Your task to perform on an android device: allow cookies in the chrome app Image 0: 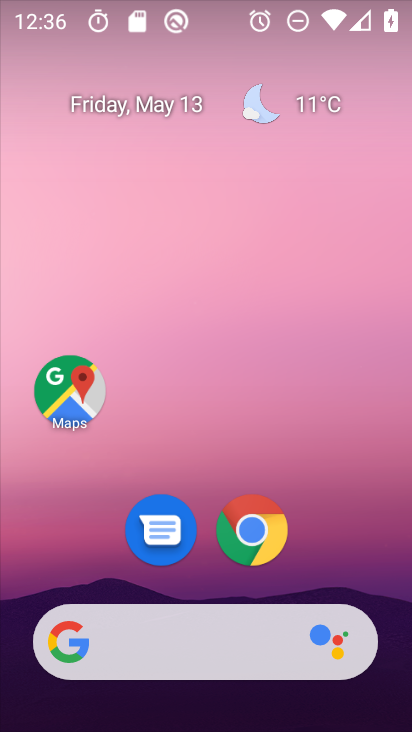
Step 0: press home button
Your task to perform on an android device: allow cookies in the chrome app Image 1: 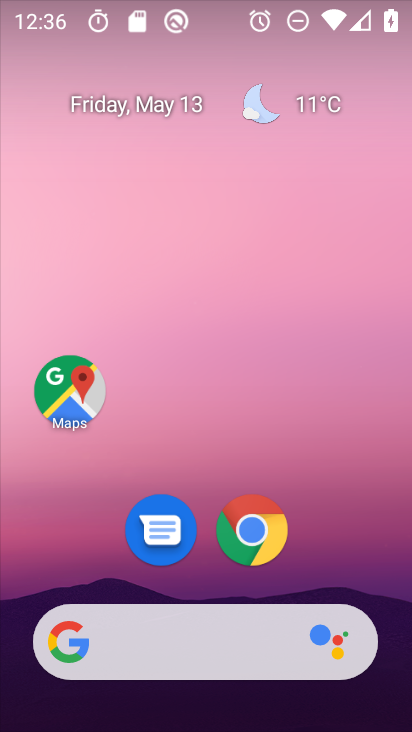
Step 1: click (250, 547)
Your task to perform on an android device: allow cookies in the chrome app Image 2: 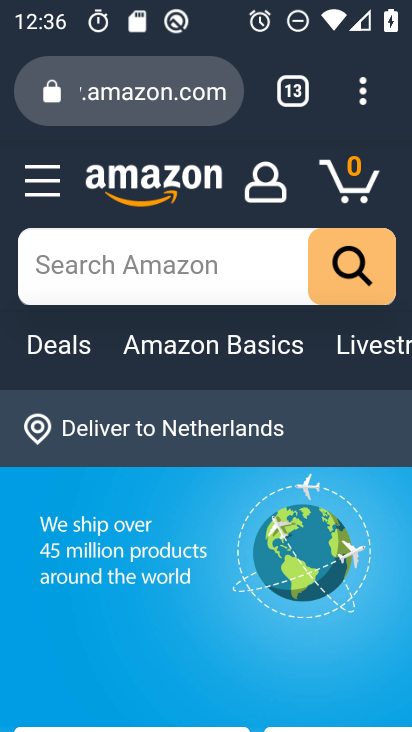
Step 2: drag from (368, 100) to (211, 563)
Your task to perform on an android device: allow cookies in the chrome app Image 3: 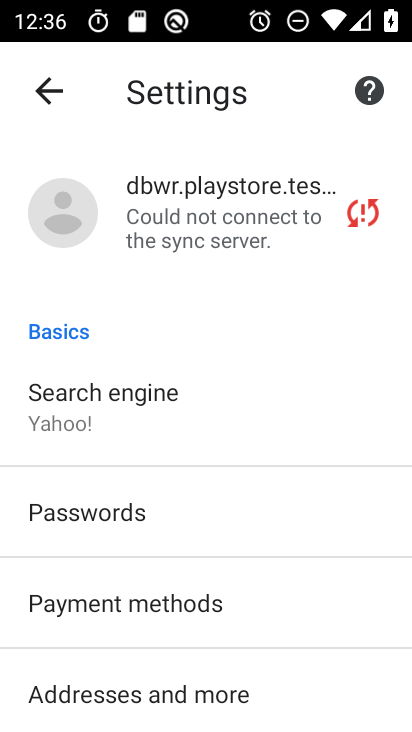
Step 3: drag from (247, 619) to (373, 213)
Your task to perform on an android device: allow cookies in the chrome app Image 4: 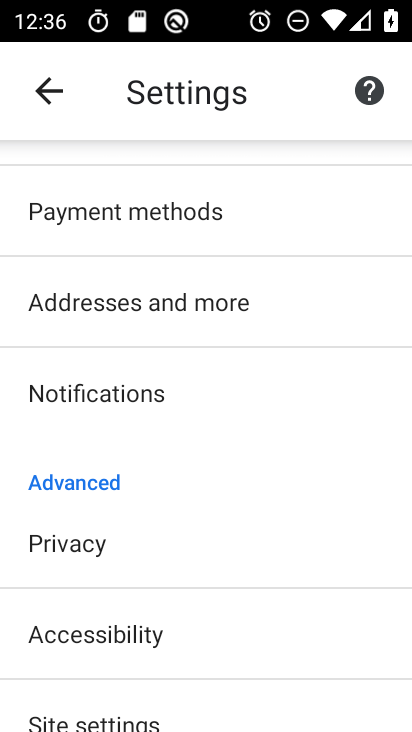
Step 4: drag from (154, 609) to (263, 228)
Your task to perform on an android device: allow cookies in the chrome app Image 5: 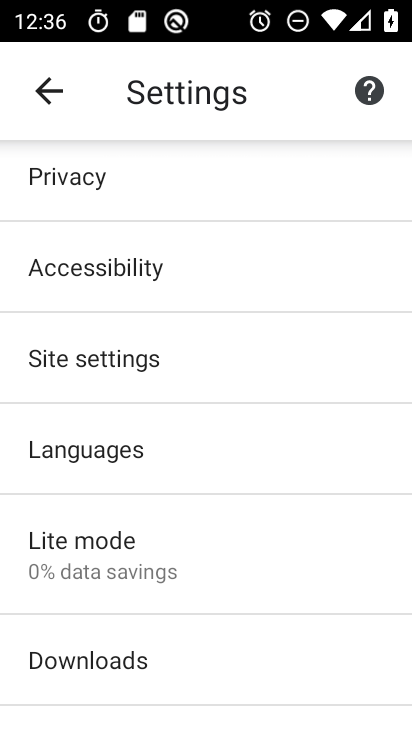
Step 5: click (129, 365)
Your task to perform on an android device: allow cookies in the chrome app Image 6: 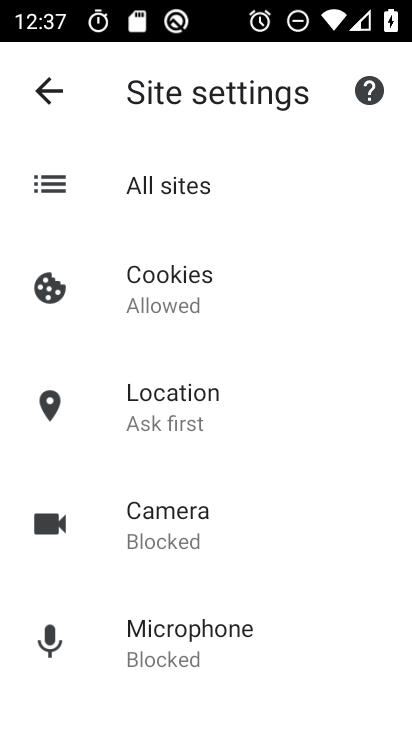
Step 6: click (169, 294)
Your task to perform on an android device: allow cookies in the chrome app Image 7: 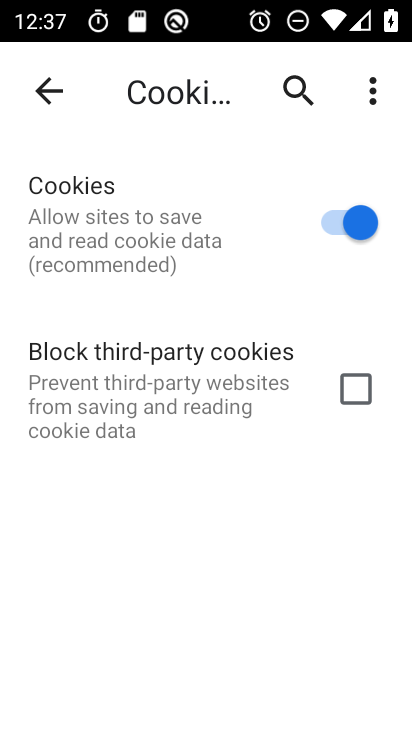
Step 7: task complete